Your task to perform on an android device: turn vacation reply on in the gmail app Image 0: 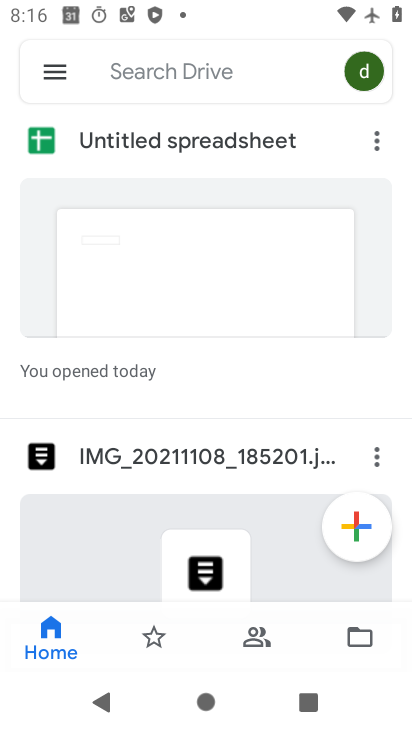
Step 0: press home button
Your task to perform on an android device: turn vacation reply on in the gmail app Image 1: 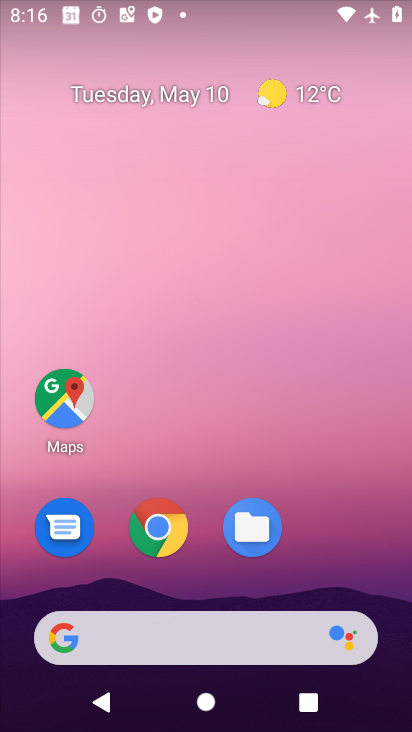
Step 1: drag from (306, 552) to (314, 147)
Your task to perform on an android device: turn vacation reply on in the gmail app Image 2: 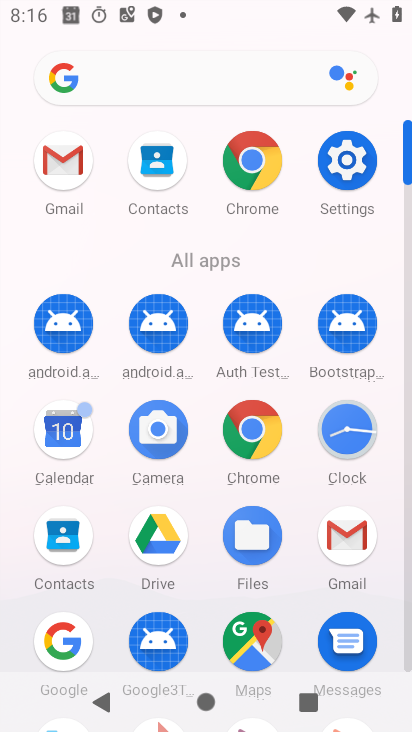
Step 2: click (50, 181)
Your task to perform on an android device: turn vacation reply on in the gmail app Image 3: 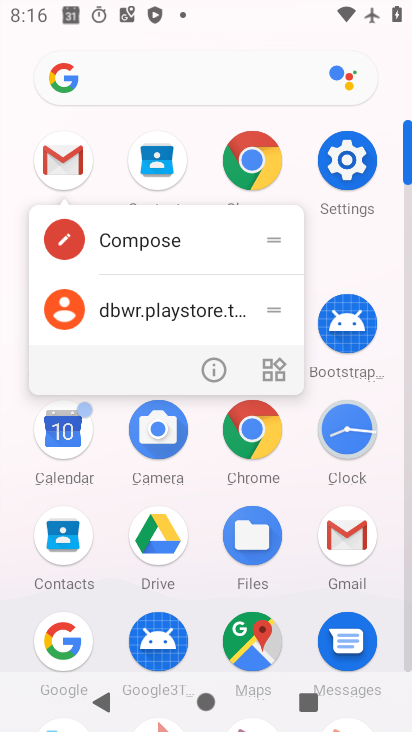
Step 3: click (361, 544)
Your task to perform on an android device: turn vacation reply on in the gmail app Image 4: 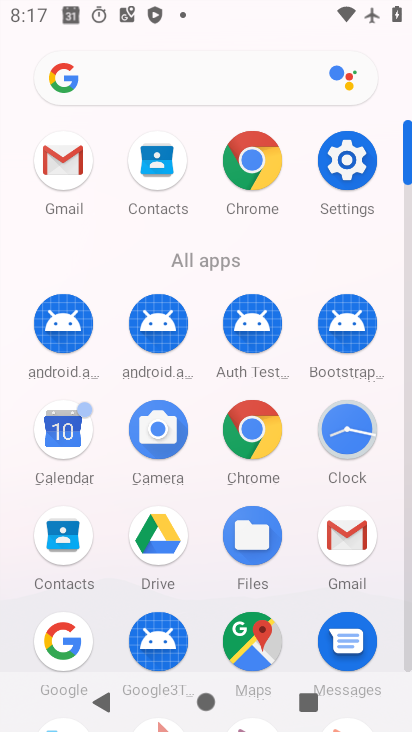
Step 4: click (323, 556)
Your task to perform on an android device: turn vacation reply on in the gmail app Image 5: 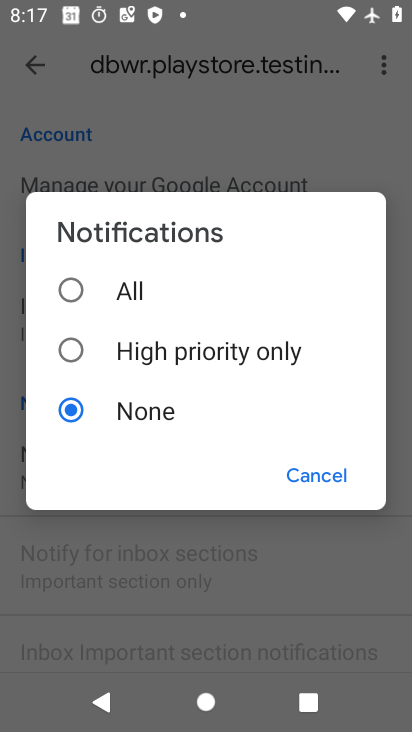
Step 5: press back button
Your task to perform on an android device: turn vacation reply on in the gmail app Image 6: 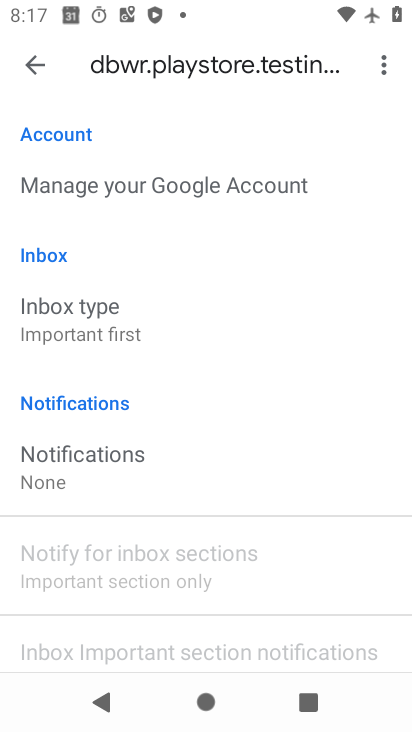
Step 6: drag from (223, 559) to (234, 149)
Your task to perform on an android device: turn vacation reply on in the gmail app Image 7: 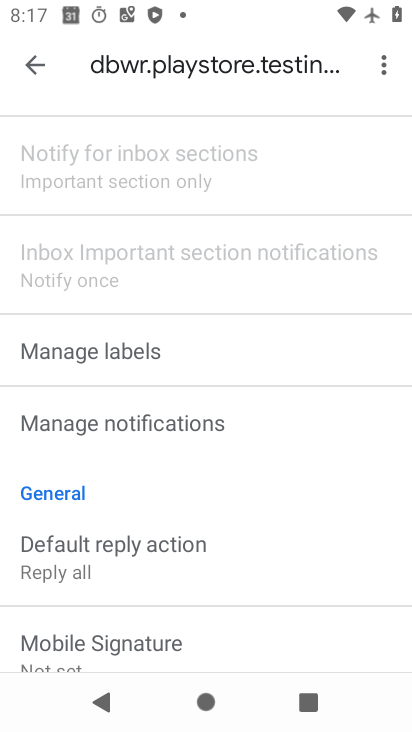
Step 7: drag from (204, 531) to (206, 355)
Your task to perform on an android device: turn vacation reply on in the gmail app Image 8: 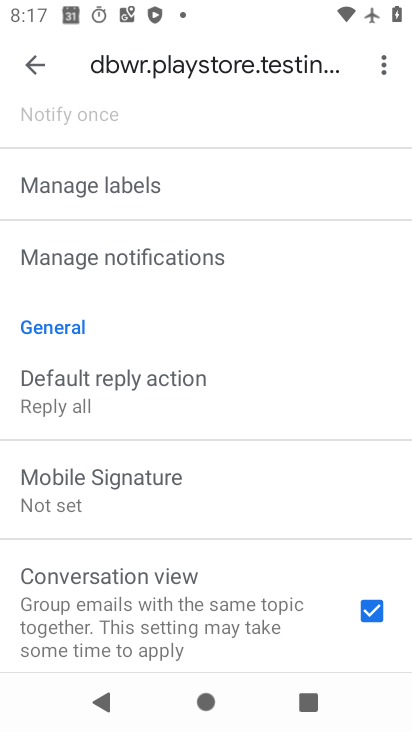
Step 8: drag from (162, 635) to (211, 281)
Your task to perform on an android device: turn vacation reply on in the gmail app Image 9: 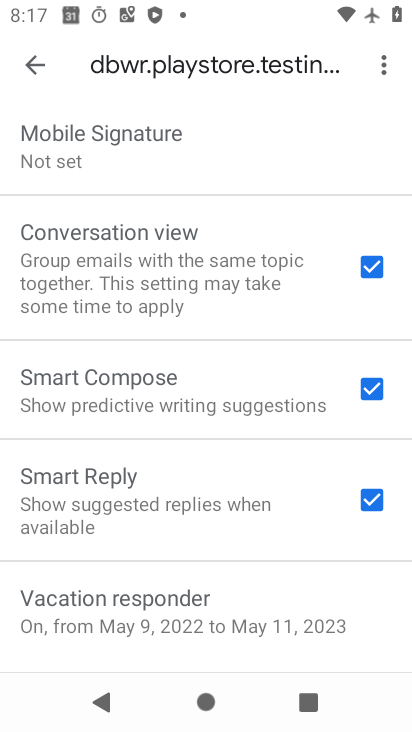
Step 9: click (163, 597)
Your task to perform on an android device: turn vacation reply on in the gmail app Image 10: 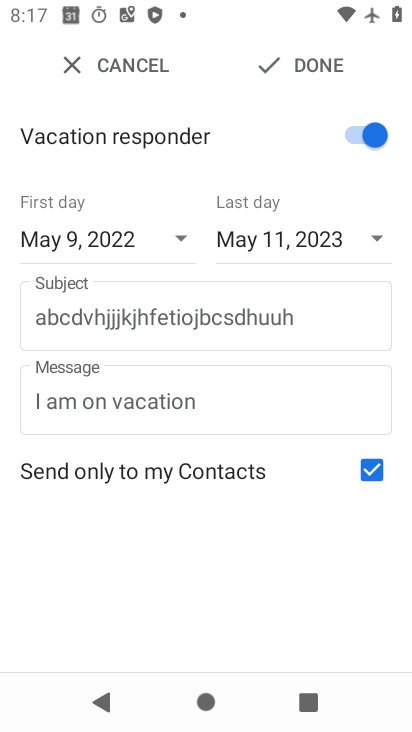
Step 10: click (327, 68)
Your task to perform on an android device: turn vacation reply on in the gmail app Image 11: 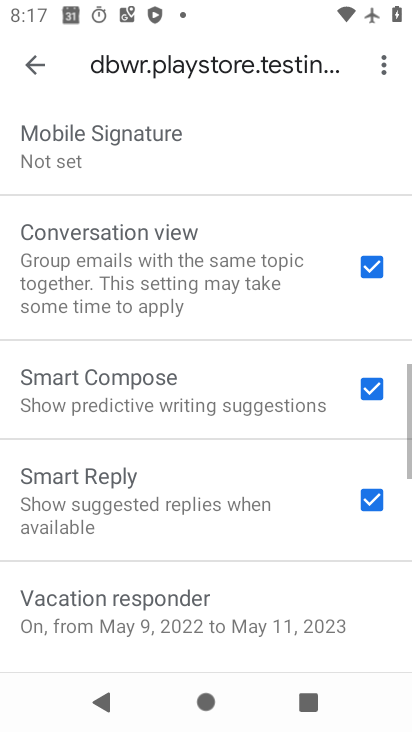
Step 11: task complete